Your task to perform on an android device: open a bookmark in the chrome app Image 0: 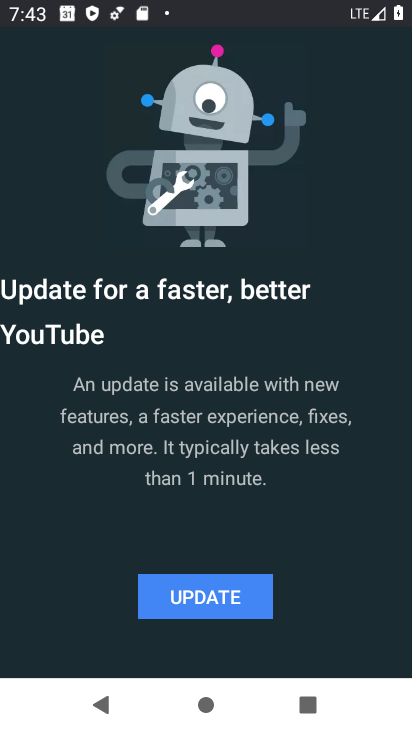
Step 0: press home button
Your task to perform on an android device: open a bookmark in the chrome app Image 1: 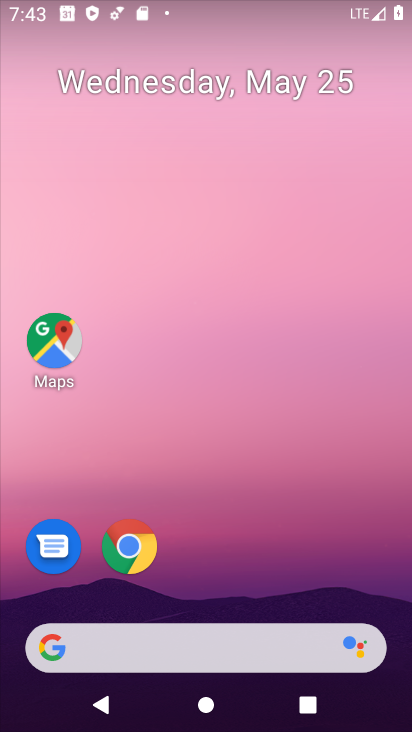
Step 1: drag from (382, 607) to (397, 229)
Your task to perform on an android device: open a bookmark in the chrome app Image 2: 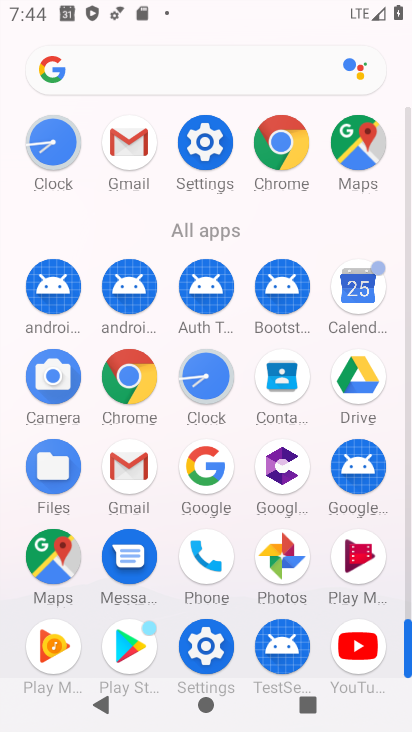
Step 2: click (129, 385)
Your task to perform on an android device: open a bookmark in the chrome app Image 3: 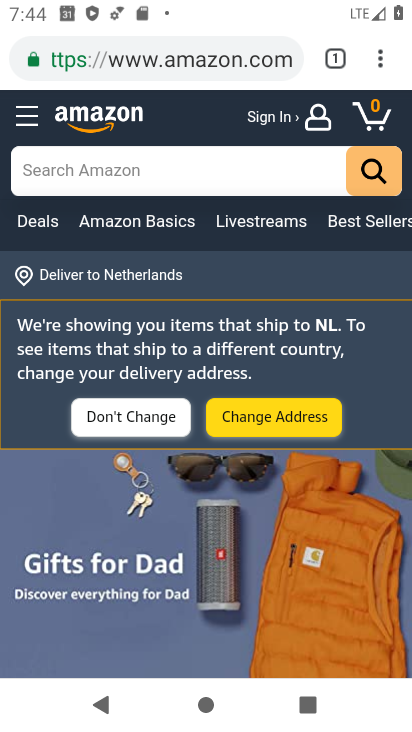
Step 3: click (384, 64)
Your task to perform on an android device: open a bookmark in the chrome app Image 4: 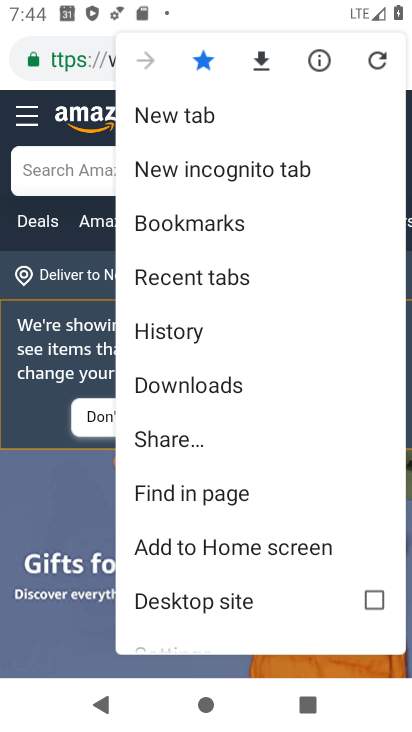
Step 4: drag from (360, 533) to (356, 447)
Your task to perform on an android device: open a bookmark in the chrome app Image 5: 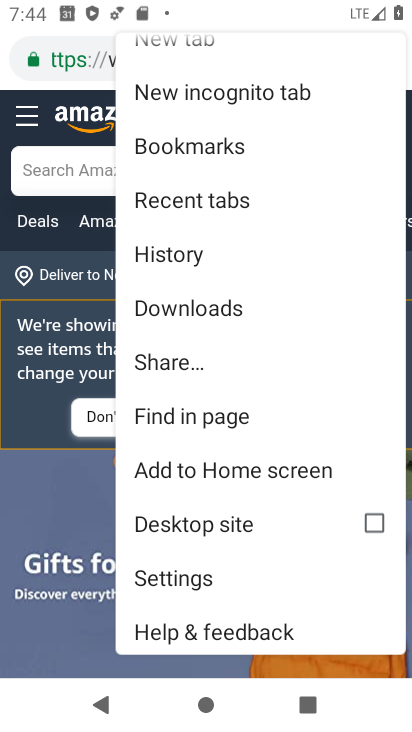
Step 5: drag from (347, 570) to (356, 438)
Your task to perform on an android device: open a bookmark in the chrome app Image 6: 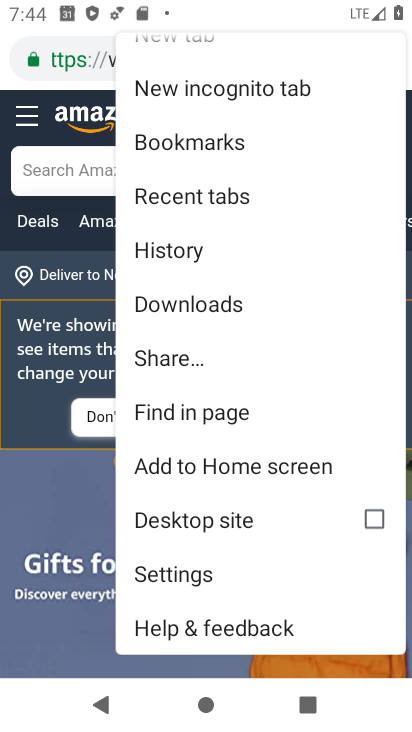
Step 6: drag from (358, 365) to (356, 449)
Your task to perform on an android device: open a bookmark in the chrome app Image 7: 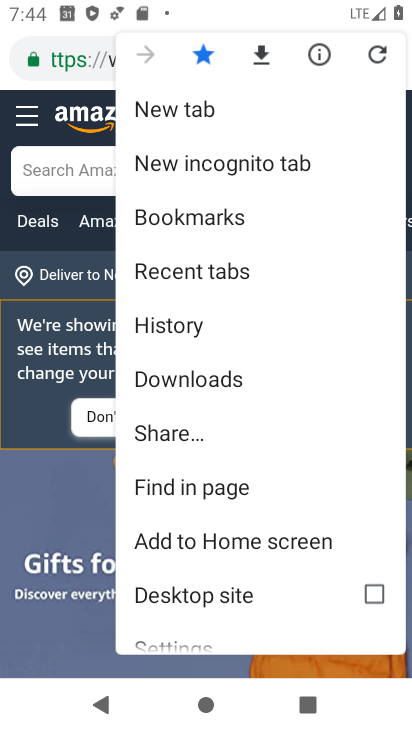
Step 7: drag from (369, 329) to (366, 417)
Your task to perform on an android device: open a bookmark in the chrome app Image 8: 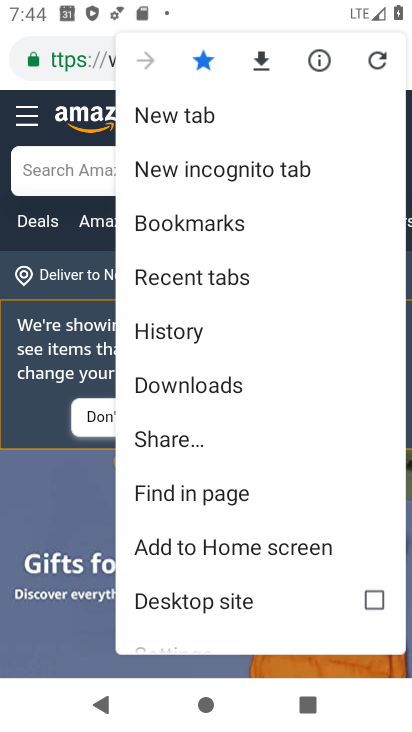
Step 8: click (248, 221)
Your task to perform on an android device: open a bookmark in the chrome app Image 9: 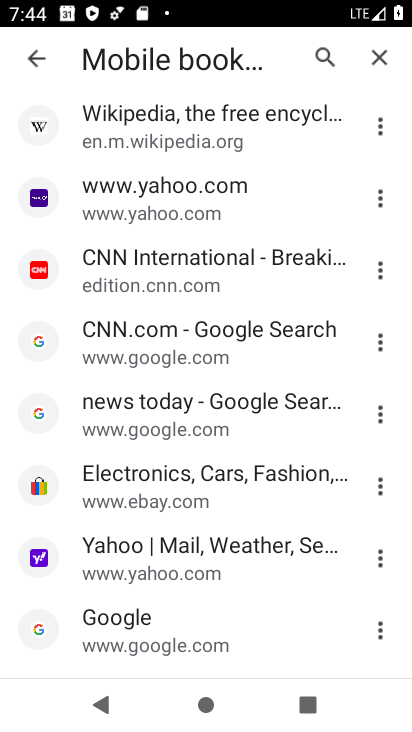
Step 9: click (178, 204)
Your task to perform on an android device: open a bookmark in the chrome app Image 10: 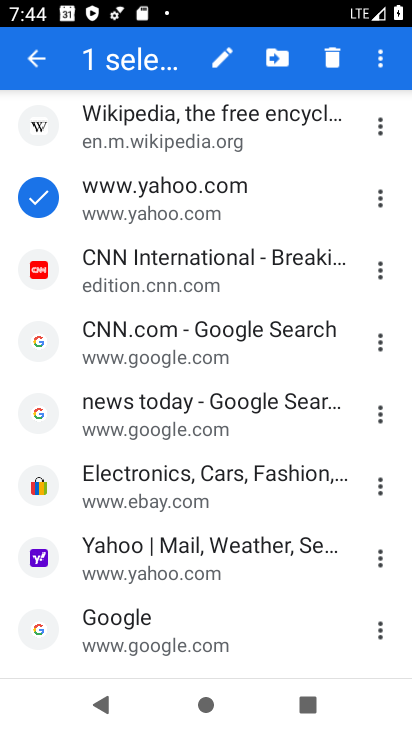
Step 10: click (178, 204)
Your task to perform on an android device: open a bookmark in the chrome app Image 11: 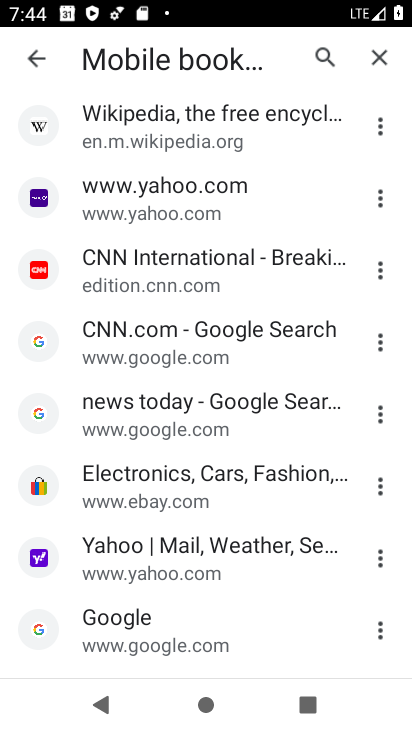
Step 11: click (203, 189)
Your task to perform on an android device: open a bookmark in the chrome app Image 12: 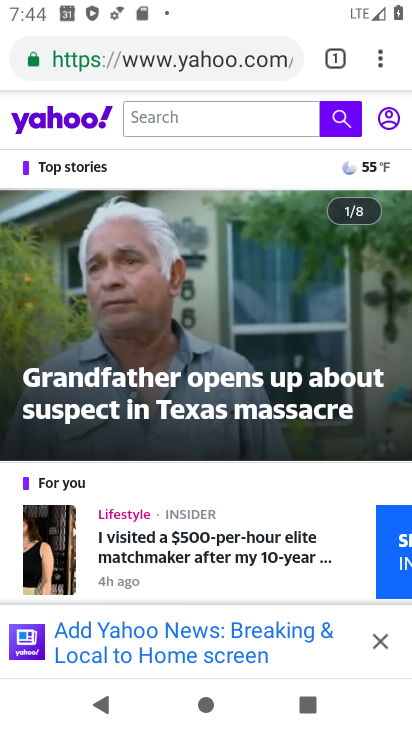
Step 12: task complete